Your task to perform on an android device: search for starred emails in the gmail app Image 0: 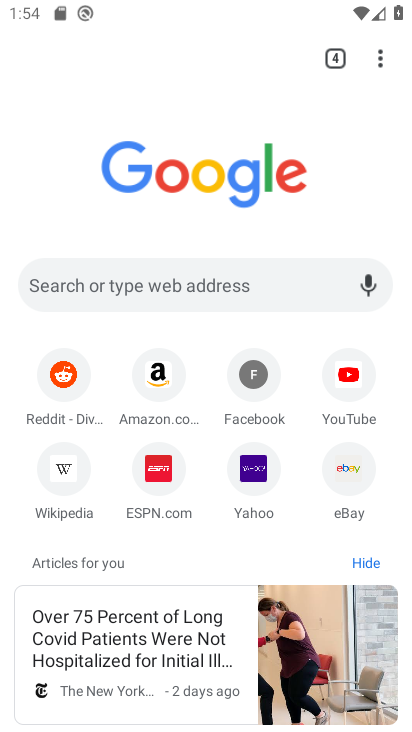
Step 0: press home button
Your task to perform on an android device: search for starred emails in the gmail app Image 1: 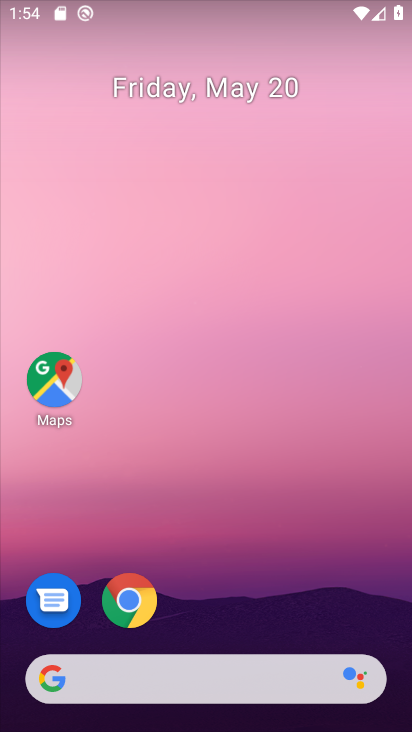
Step 1: drag from (234, 286) to (232, 2)
Your task to perform on an android device: search for starred emails in the gmail app Image 2: 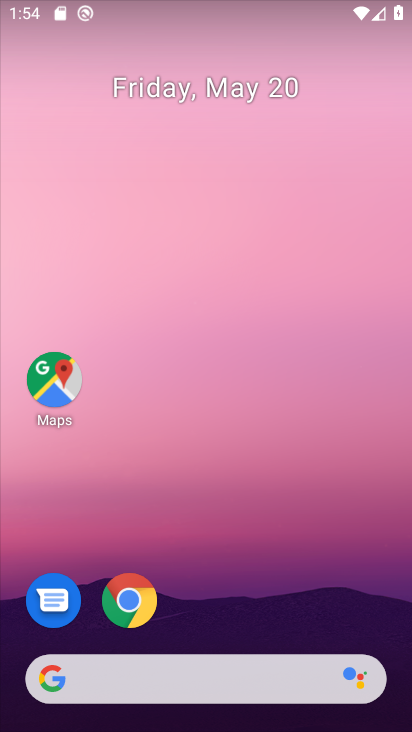
Step 2: drag from (269, 573) to (181, 75)
Your task to perform on an android device: search for starred emails in the gmail app Image 3: 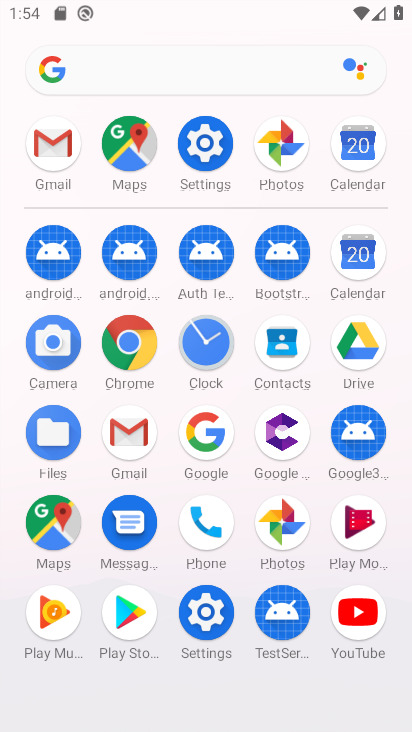
Step 3: click (38, 140)
Your task to perform on an android device: search for starred emails in the gmail app Image 4: 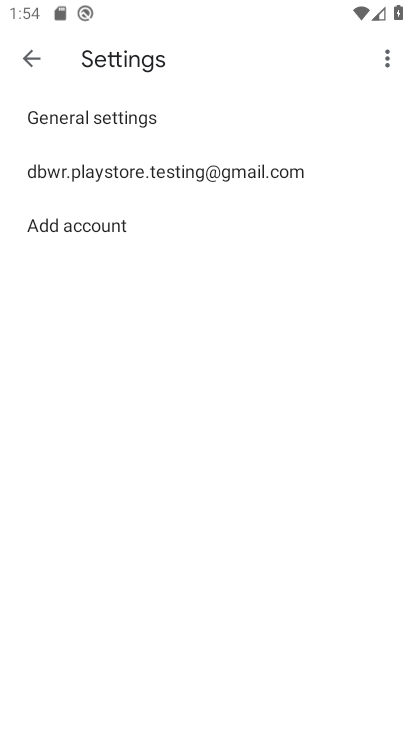
Step 4: click (27, 53)
Your task to perform on an android device: search for starred emails in the gmail app Image 5: 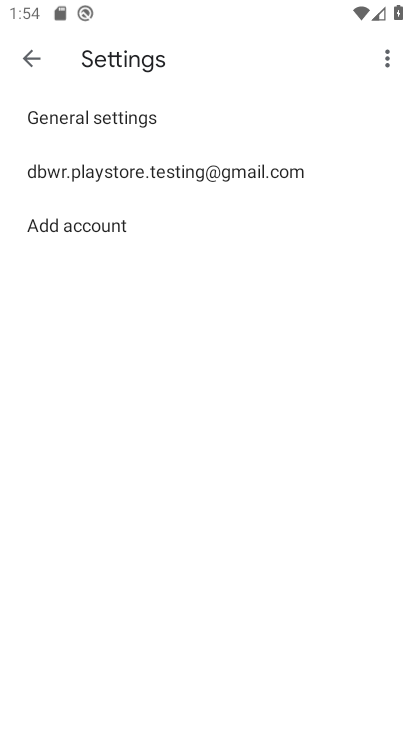
Step 5: click (34, 56)
Your task to perform on an android device: search for starred emails in the gmail app Image 6: 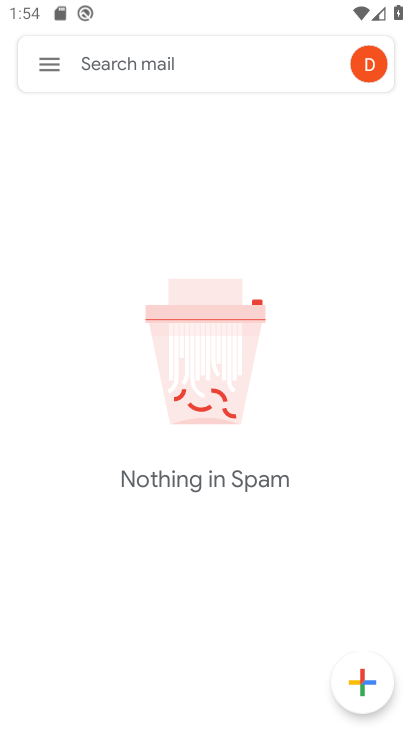
Step 6: click (205, 58)
Your task to perform on an android device: search for starred emails in the gmail app Image 7: 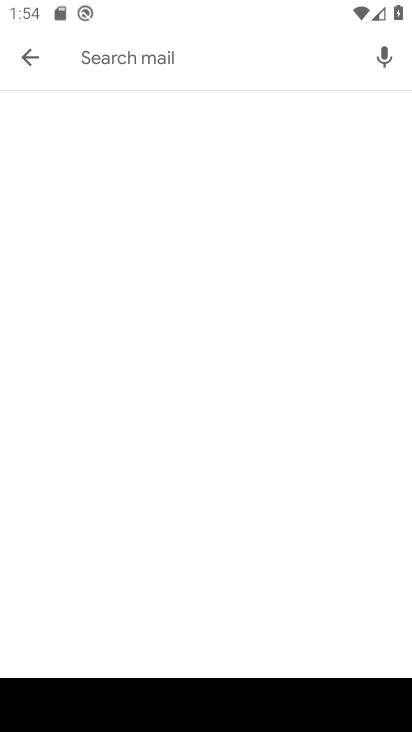
Step 7: type "starred"
Your task to perform on an android device: search for starred emails in the gmail app Image 8: 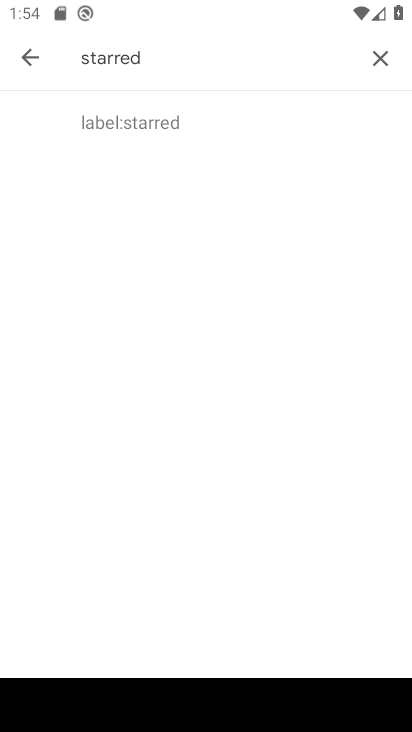
Step 8: click (128, 118)
Your task to perform on an android device: search for starred emails in the gmail app Image 9: 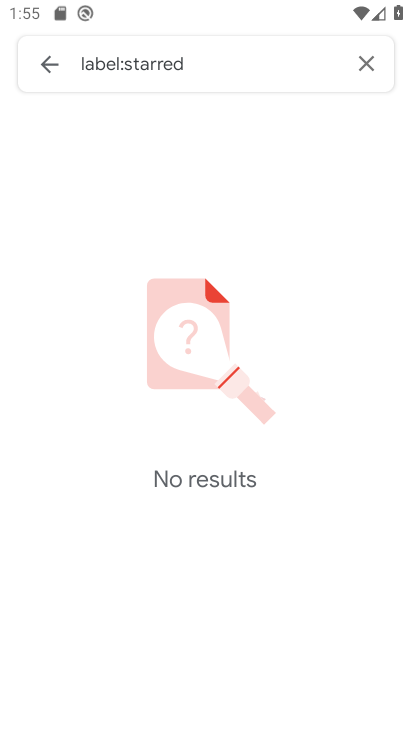
Step 9: task complete